Your task to perform on an android device: What's on my calendar today? Image 0: 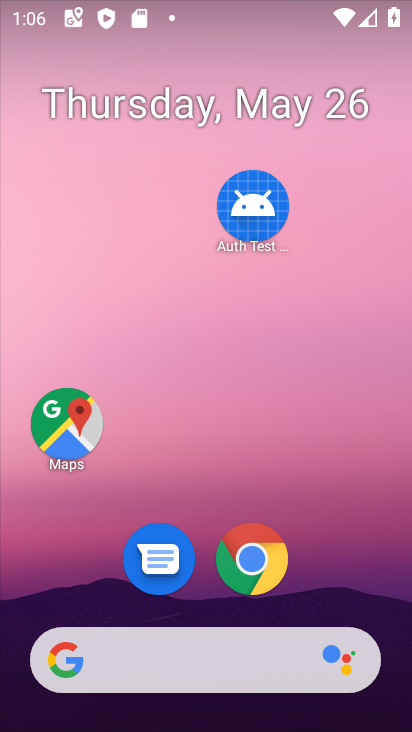
Step 0: drag from (378, 568) to (408, 14)
Your task to perform on an android device: What's on my calendar today? Image 1: 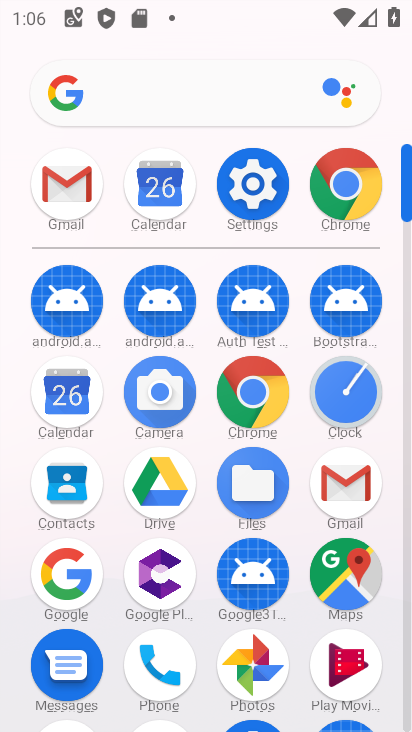
Step 1: click (77, 395)
Your task to perform on an android device: What's on my calendar today? Image 2: 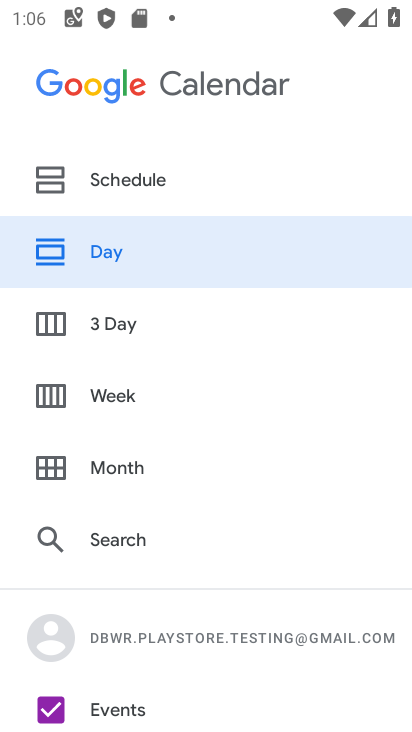
Step 2: click (102, 249)
Your task to perform on an android device: What's on my calendar today? Image 3: 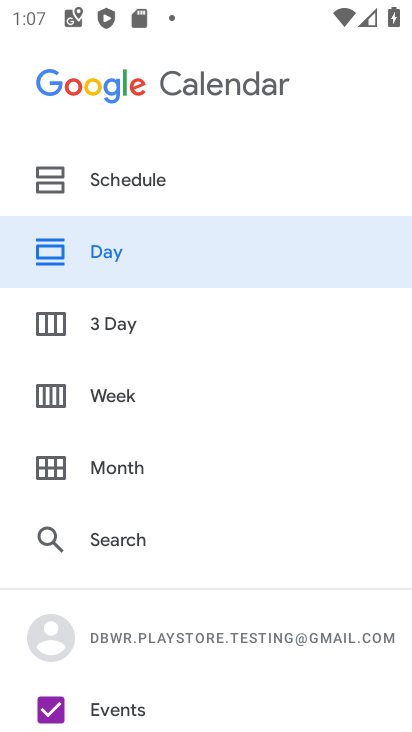
Step 3: click (200, 262)
Your task to perform on an android device: What's on my calendar today? Image 4: 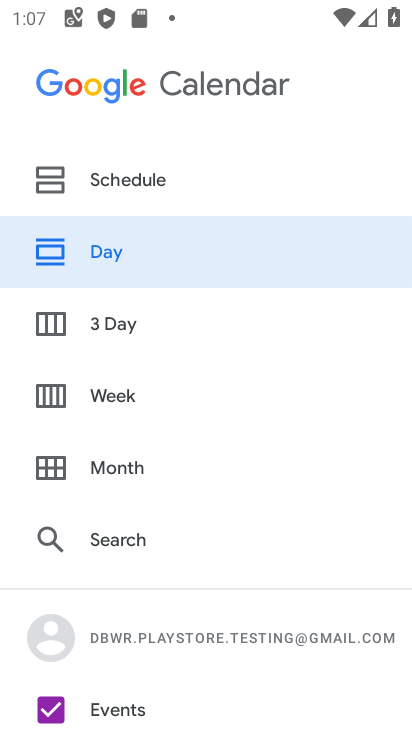
Step 4: task complete